Your task to perform on an android device: Go to settings Image 0: 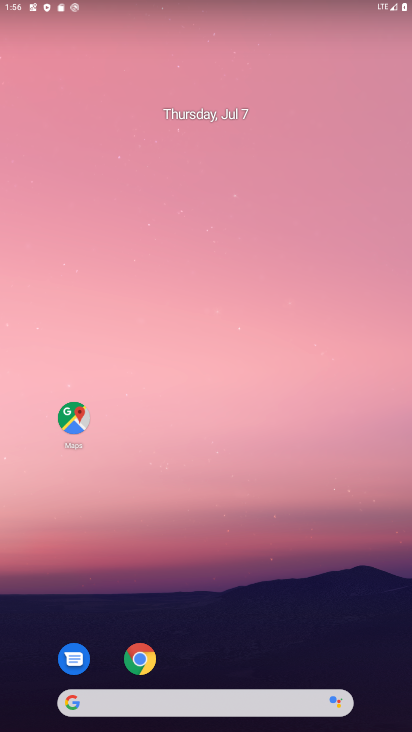
Step 0: drag from (261, 670) to (230, 29)
Your task to perform on an android device: Go to settings Image 1: 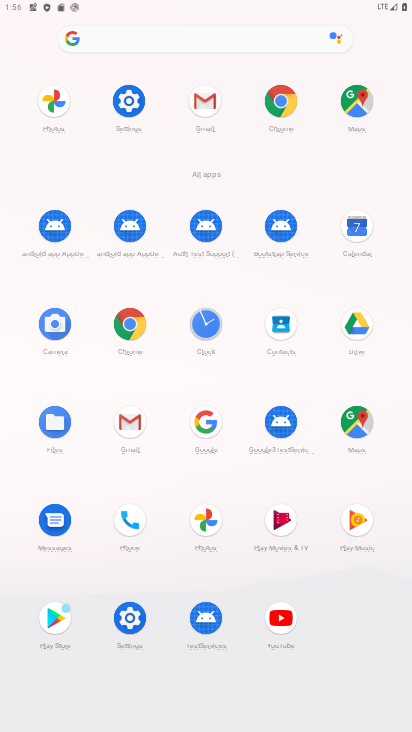
Step 1: click (128, 102)
Your task to perform on an android device: Go to settings Image 2: 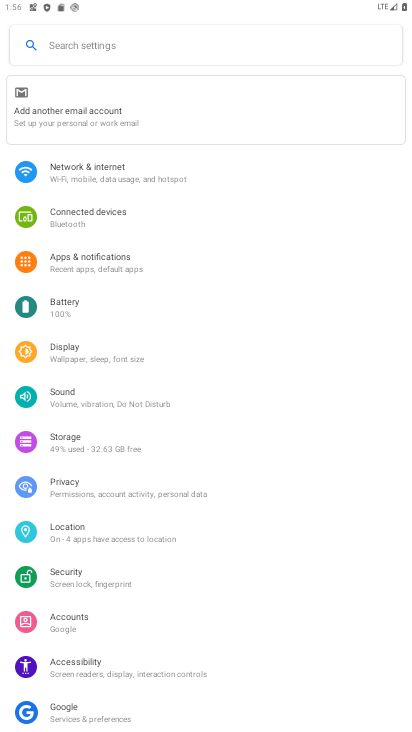
Step 2: task complete